Your task to perform on an android device: Play the last video I watched on Youtube Image 0: 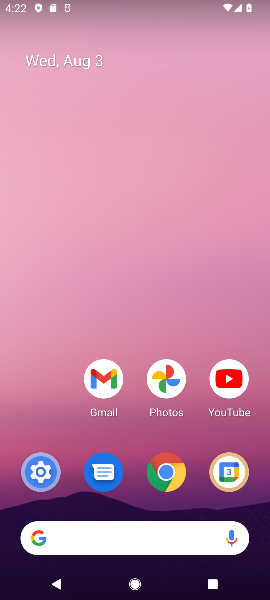
Step 0: drag from (202, 423) to (219, 53)
Your task to perform on an android device: Play the last video I watched on Youtube Image 1: 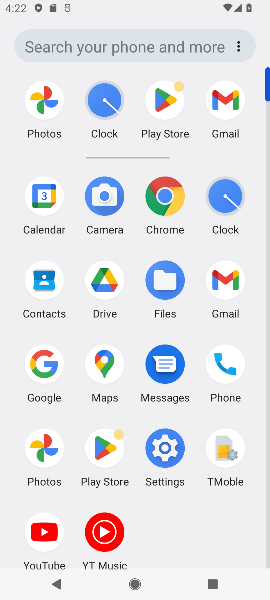
Step 1: click (47, 538)
Your task to perform on an android device: Play the last video I watched on Youtube Image 2: 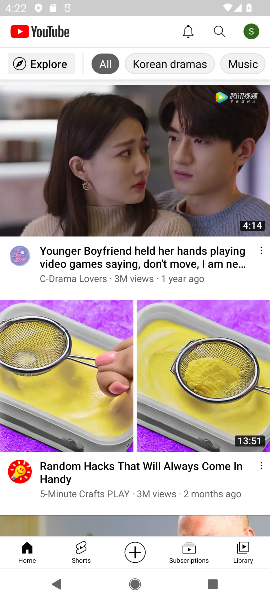
Step 2: click (233, 556)
Your task to perform on an android device: Play the last video I watched on Youtube Image 3: 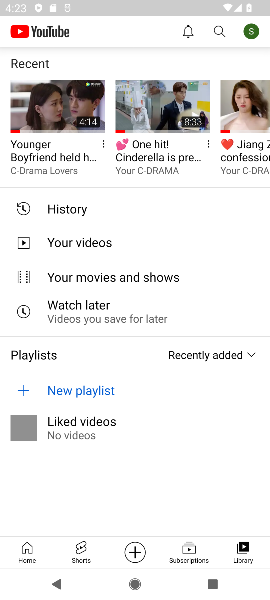
Step 3: click (70, 106)
Your task to perform on an android device: Play the last video I watched on Youtube Image 4: 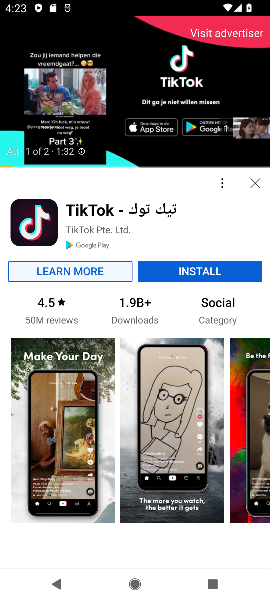
Step 4: click (262, 184)
Your task to perform on an android device: Play the last video I watched on Youtube Image 5: 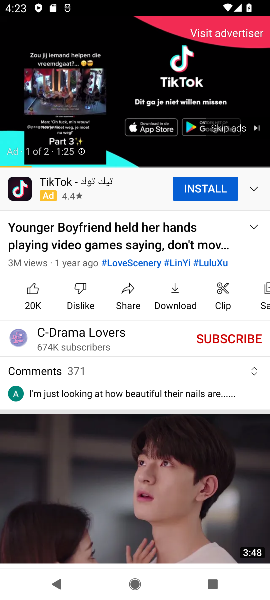
Step 5: click (229, 123)
Your task to perform on an android device: Play the last video I watched on Youtube Image 6: 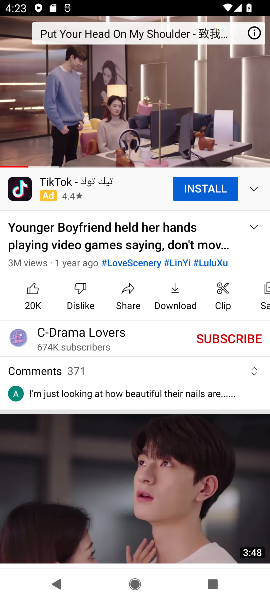
Step 6: task complete